Your task to perform on an android device: turn on airplane mode Image 0: 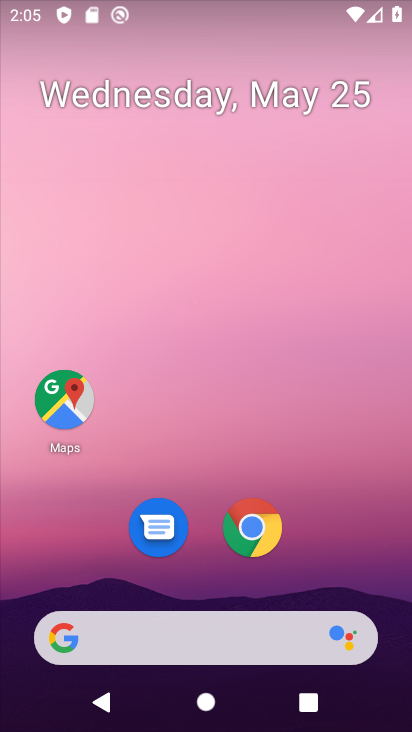
Step 0: drag from (343, 16) to (338, 376)
Your task to perform on an android device: turn on airplane mode Image 1: 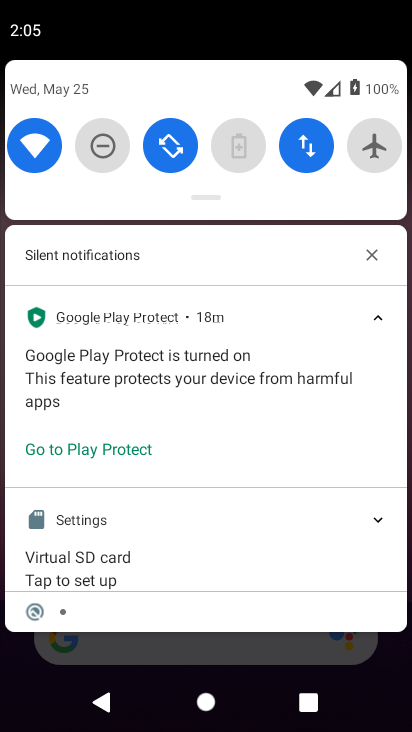
Step 1: click (361, 154)
Your task to perform on an android device: turn on airplane mode Image 2: 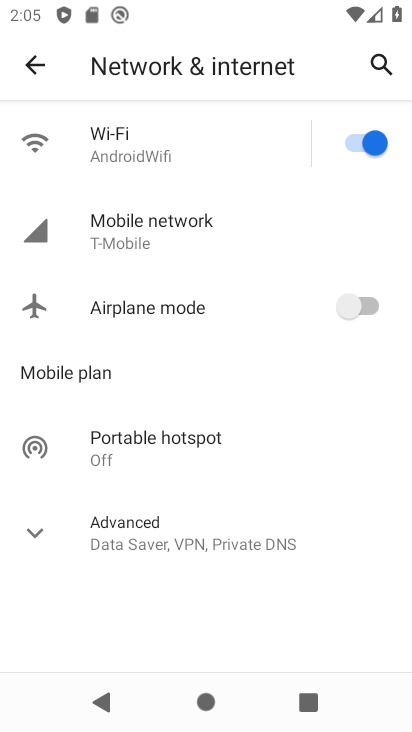
Step 2: click (367, 300)
Your task to perform on an android device: turn on airplane mode Image 3: 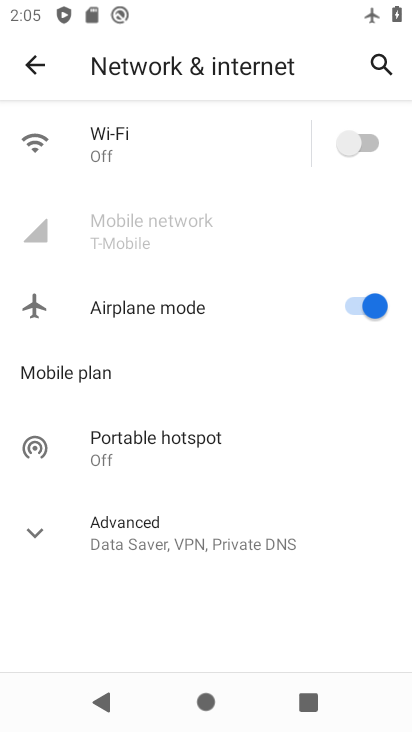
Step 3: task complete